Your task to perform on an android device: Add "bose quietcomfort 35" to the cart on bestbuy, then select checkout. Image 0: 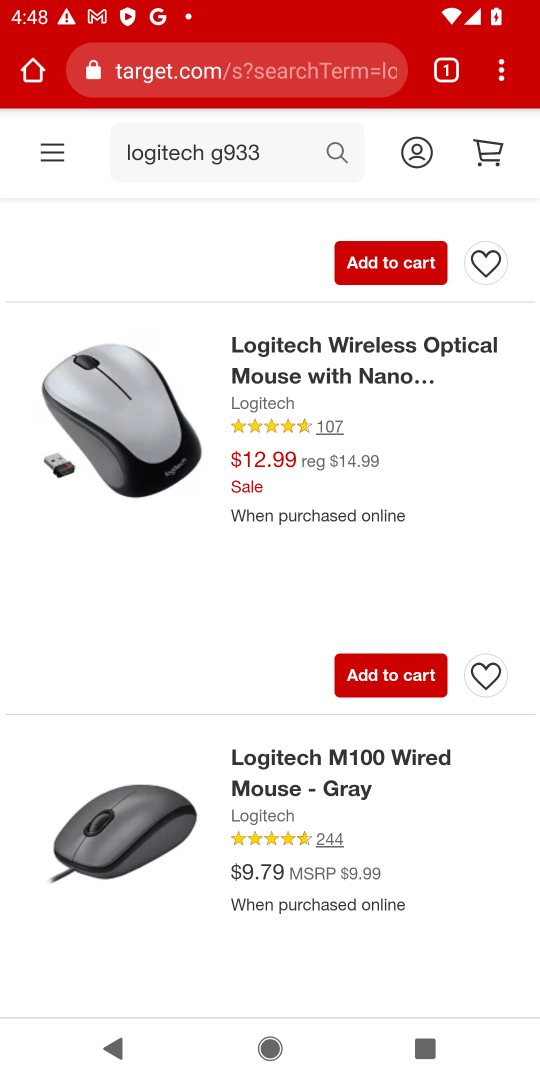
Step 0: press home button
Your task to perform on an android device: Add "bose quietcomfort 35" to the cart on bestbuy, then select checkout. Image 1: 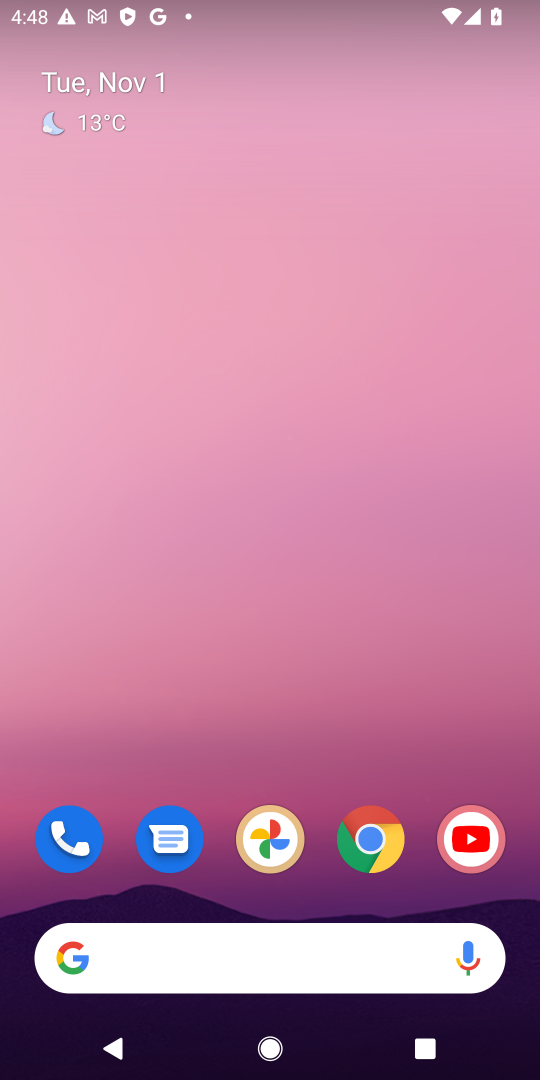
Step 1: drag from (323, 661) to (336, 155)
Your task to perform on an android device: Add "bose quietcomfort 35" to the cart on bestbuy, then select checkout. Image 2: 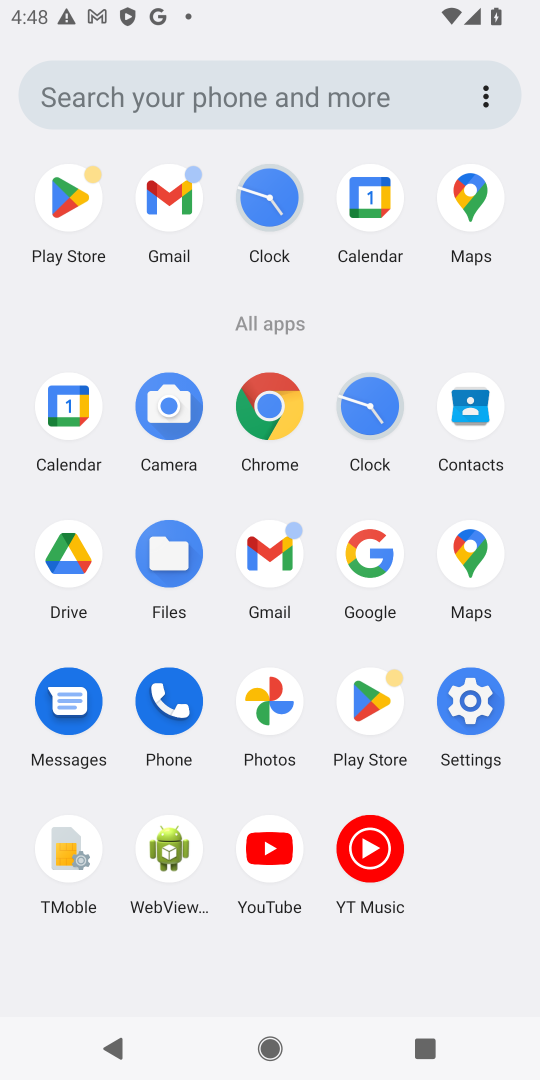
Step 2: click (336, 155)
Your task to perform on an android device: Add "bose quietcomfort 35" to the cart on bestbuy, then select checkout. Image 3: 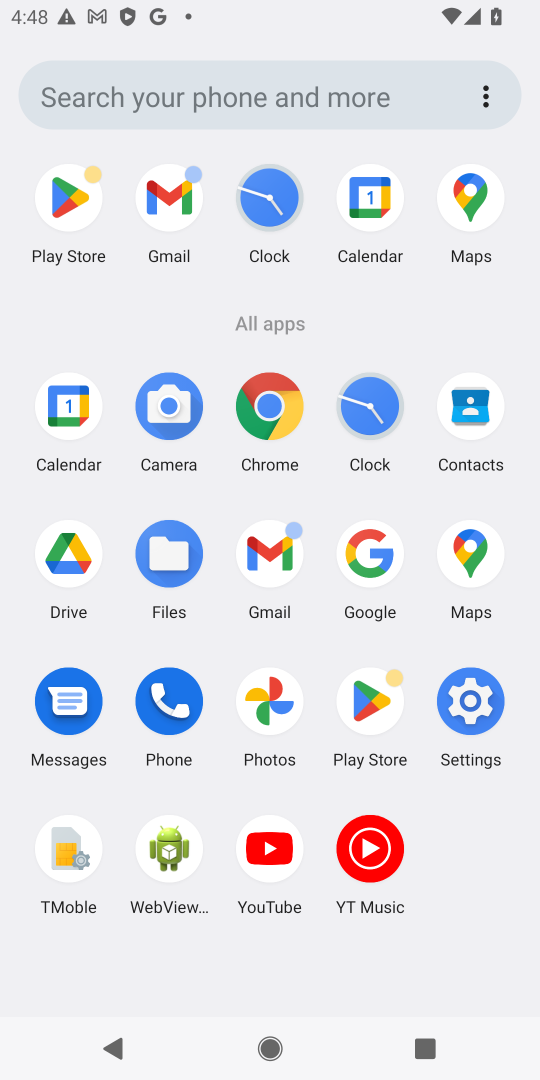
Step 3: click (253, 415)
Your task to perform on an android device: Add "bose quietcomfort 35" to the cart on bestbuy, then select checkout. Image 4: 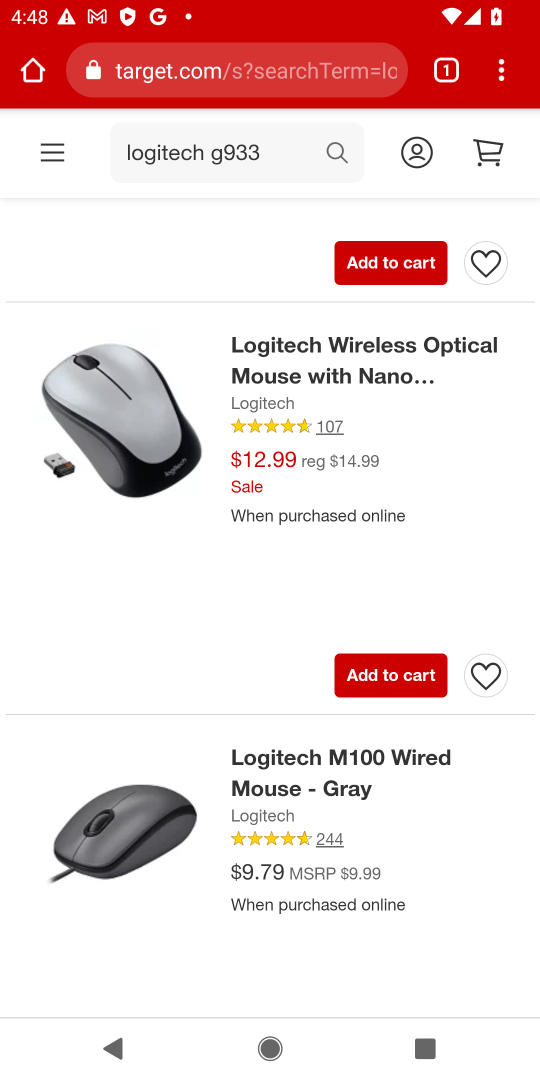
Step 4: click (347, 78)
Your task to perform on an android device: Add "bose quietcomfort 35" to the cart on bestbuy, then select checkout. Image 5: 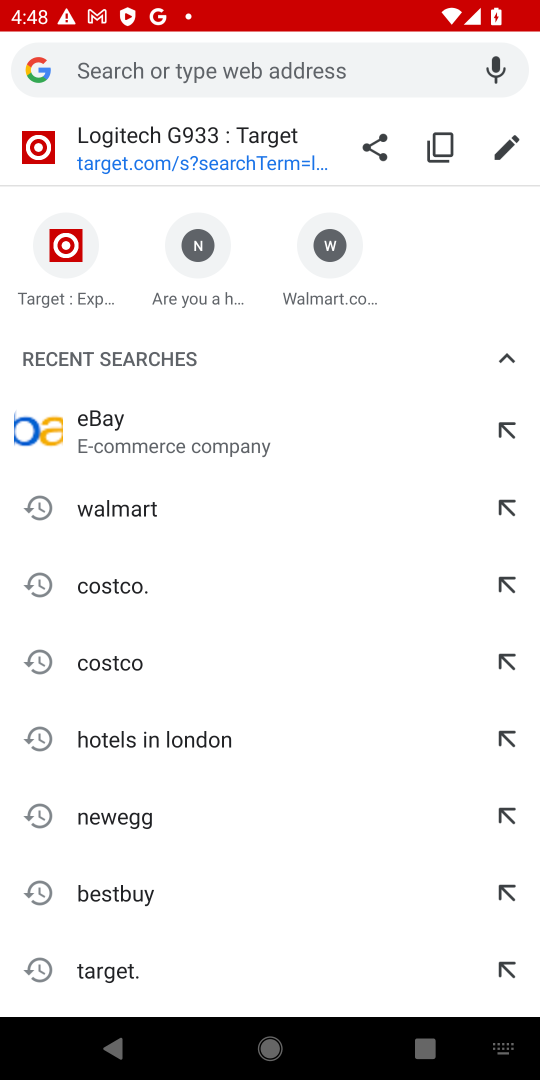
Step 5: type "bestbuy.com"
Your task to perform on an android device: Add "bose quietcomfort 35" to the cart on bestbuy, then select checkout. Image 6: 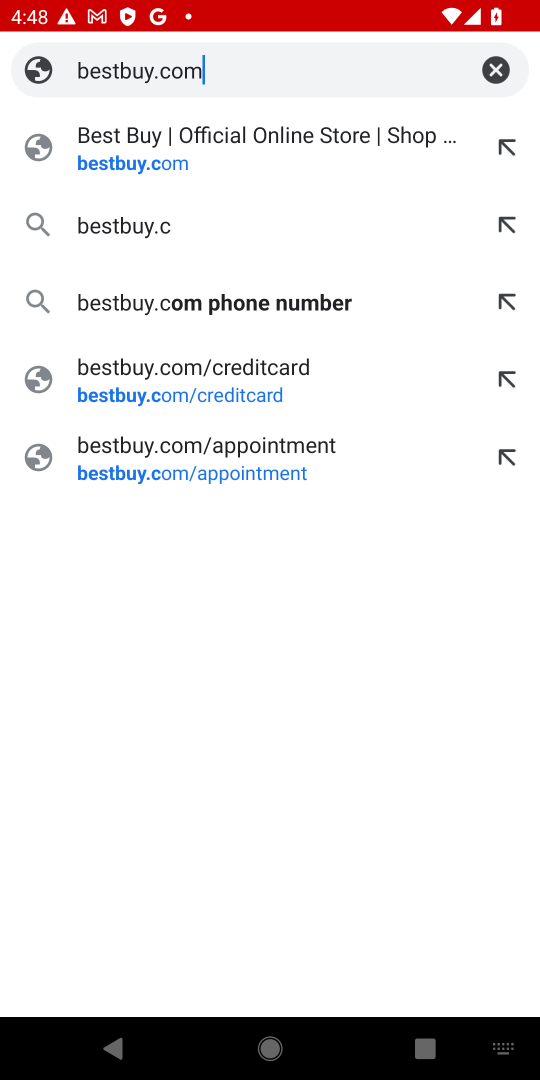
Step 6: press enter
Your task to perform on an android device: Add "bose quietcomfort 35" to the cart on bestbuy, then select checkout. Image 7: 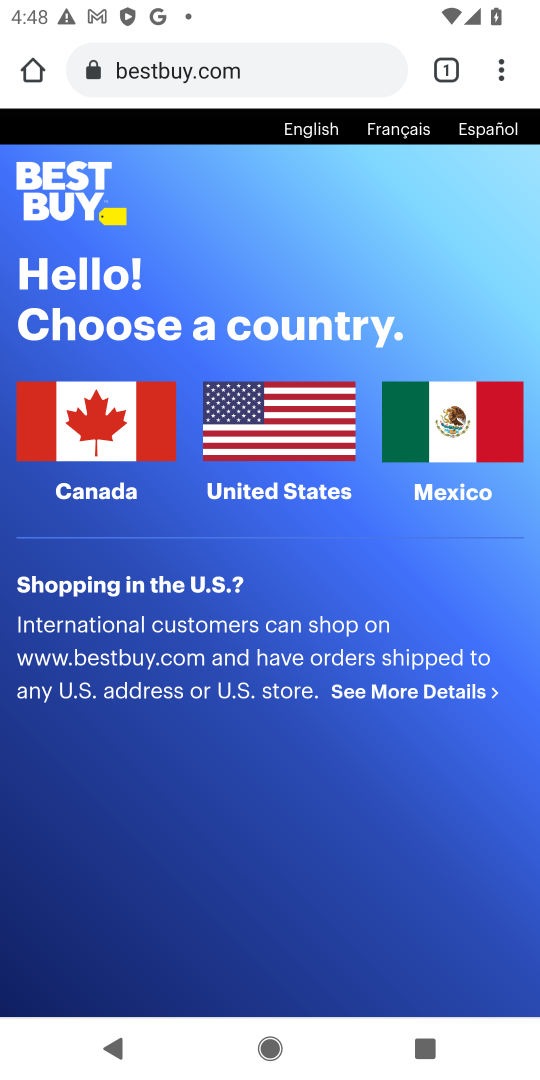
Step 7: click (141, 415)
Your task to perform on an android device: Add "bose quietcomfort 35" to the cart on bestbuy, then select checkout. Image 8: 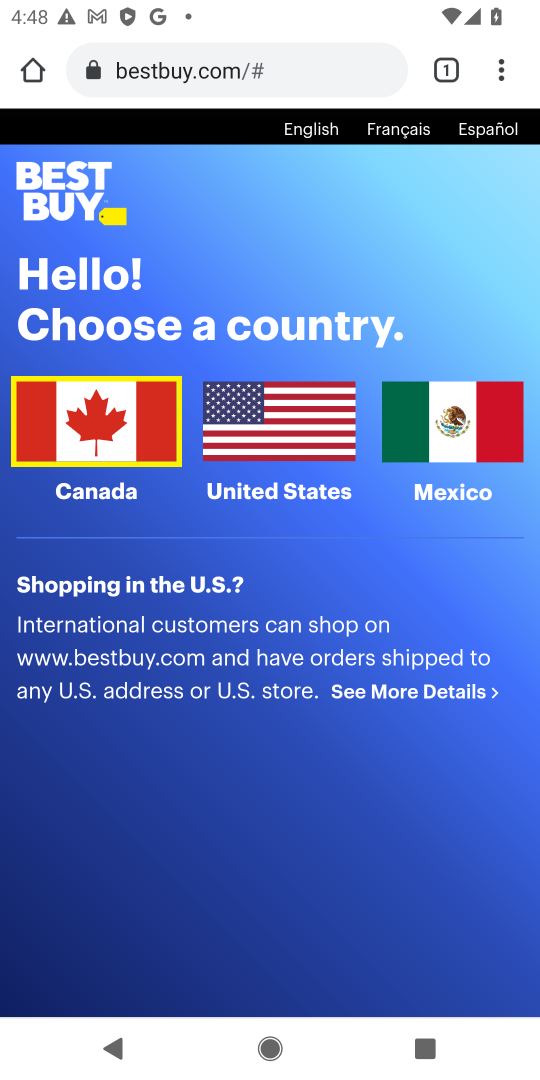
Step 8: click (128, 409)
Your task to perform on an android device: Add "bose quietcomfort 35" to the cart on bestbuy, then select checkout. Image 9: 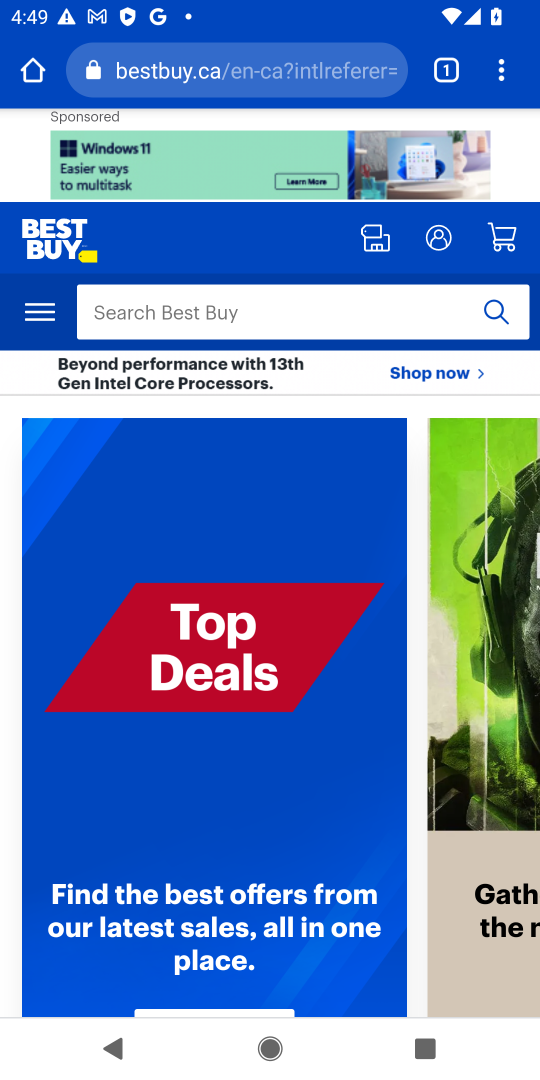
Step 9: click (315, 291)
Your task to perform on an android device: Add "bose quietcomfort 35" to the cart on bestbuy, then select checkout. Image 10: 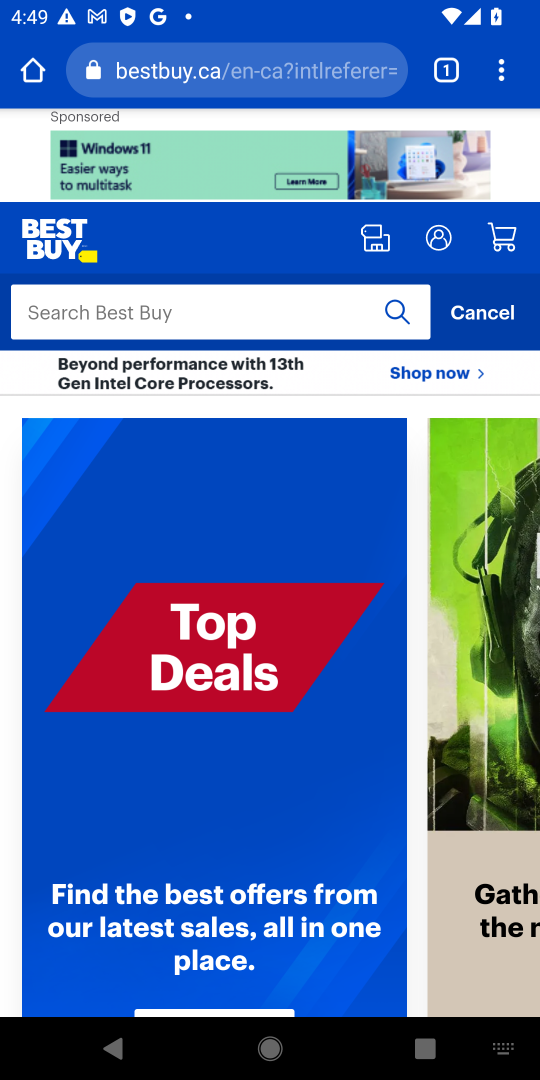
Step 10: type "bose quietcomfort"
Your task to perform on an android device: Add "bose quietcomfort 35" to the cart on bestbuy, then select checkout. Image 11: 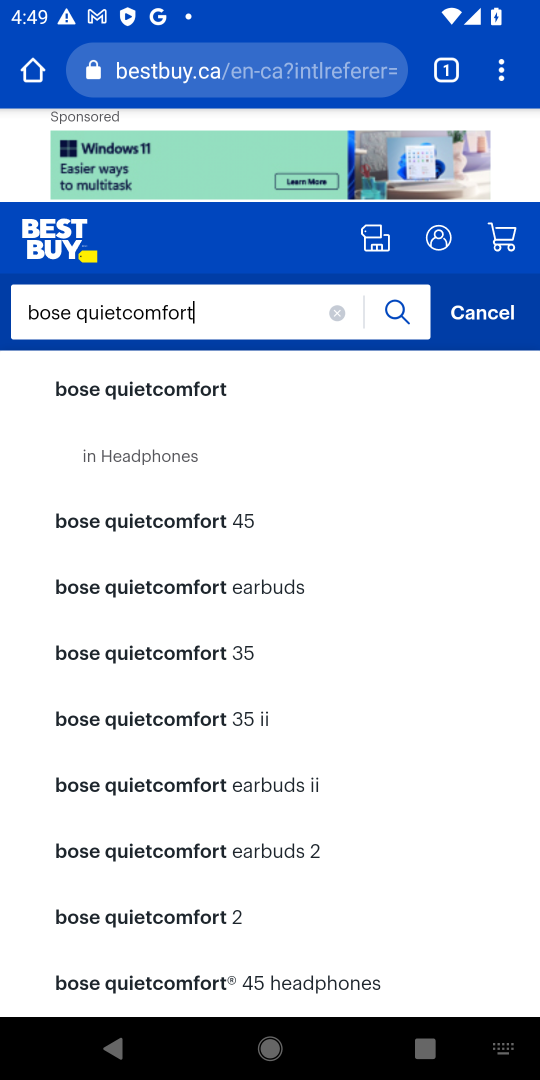
Step 11: press enter
Your task to perform on an android device: Add "bose quietcomfort 35" to the cart on bestbuy, then select checkout. Image 12: 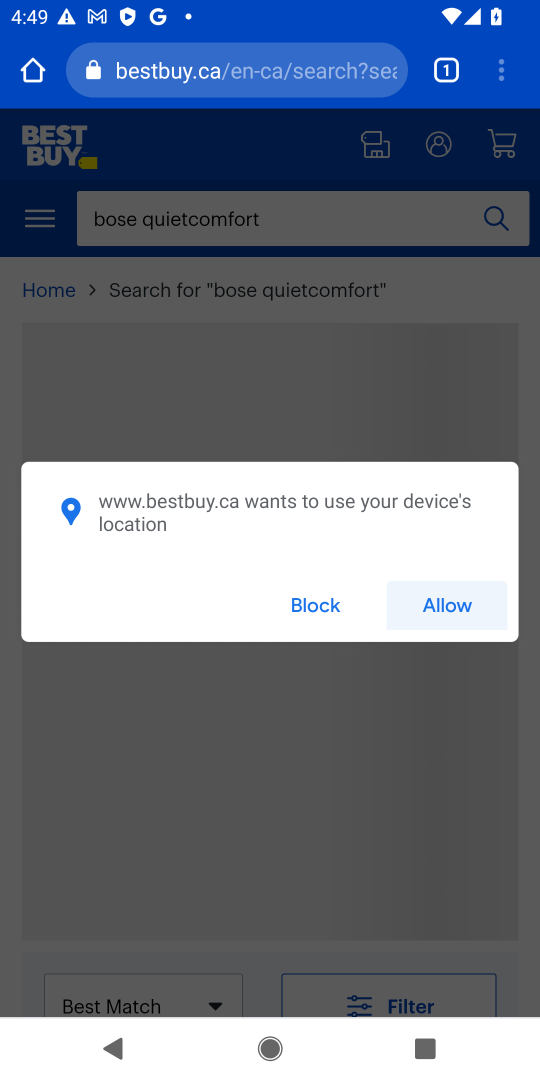
Step 12: click (305, 615)
Your task to perform on an android device: Add "bose quietcomfort 35" to the cart on bestbuy, then select checkout. Image 13: 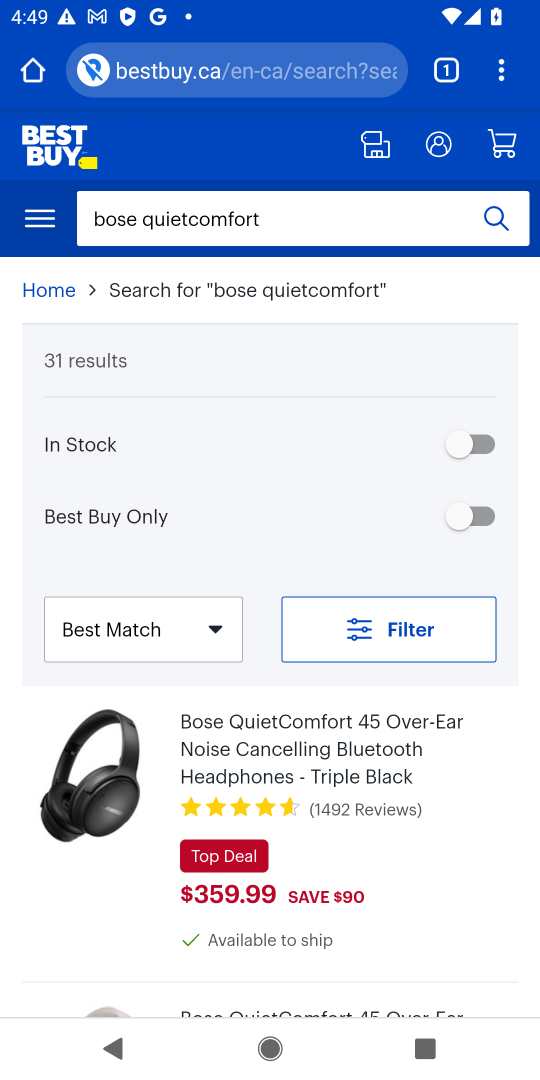
Step 13: drag from (431, 808) to (459, 372)
Your task to perform on an android device: Add "bose quietcomfort 35" to the cart on bestbuy, then select checkout. Image 14: 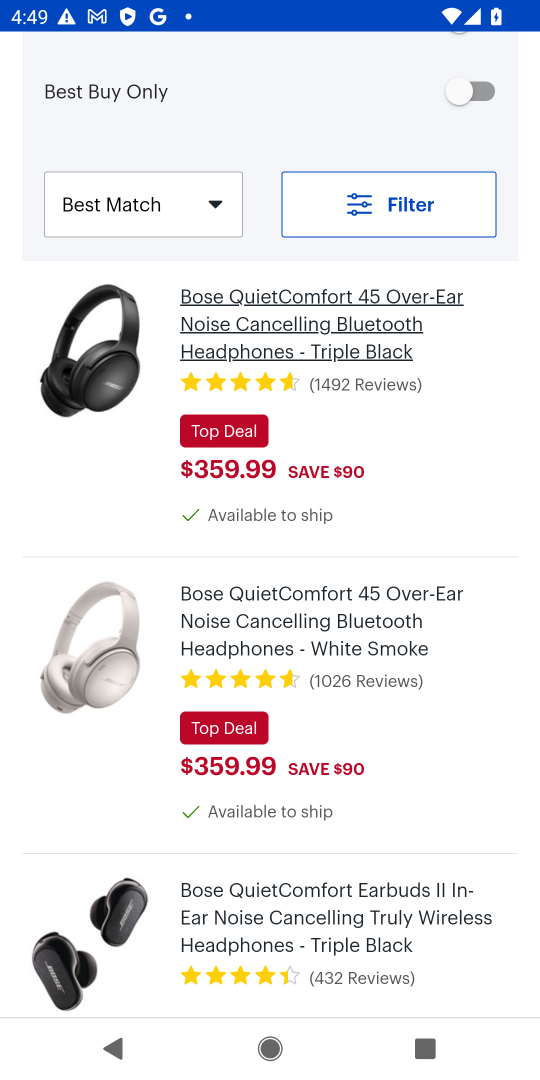
Step 14: drag from (370, 727) to (391, 176)
Your task to perform on an android device: Add "bose quietcomfort 35" to the cart on bestbuy, then select checkout. Image 15: 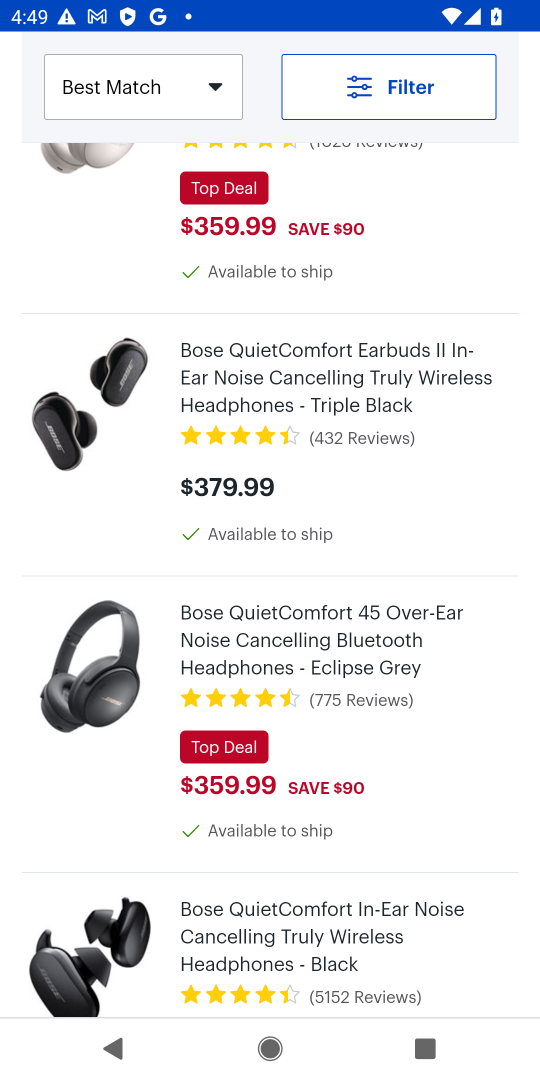
Step 15: drag from (318, 392) to (344, 1028)
Your task to perform on an android device: Add "bose quietcomfort 35" to the cart on bestbuy, then select checkout. Image 16: 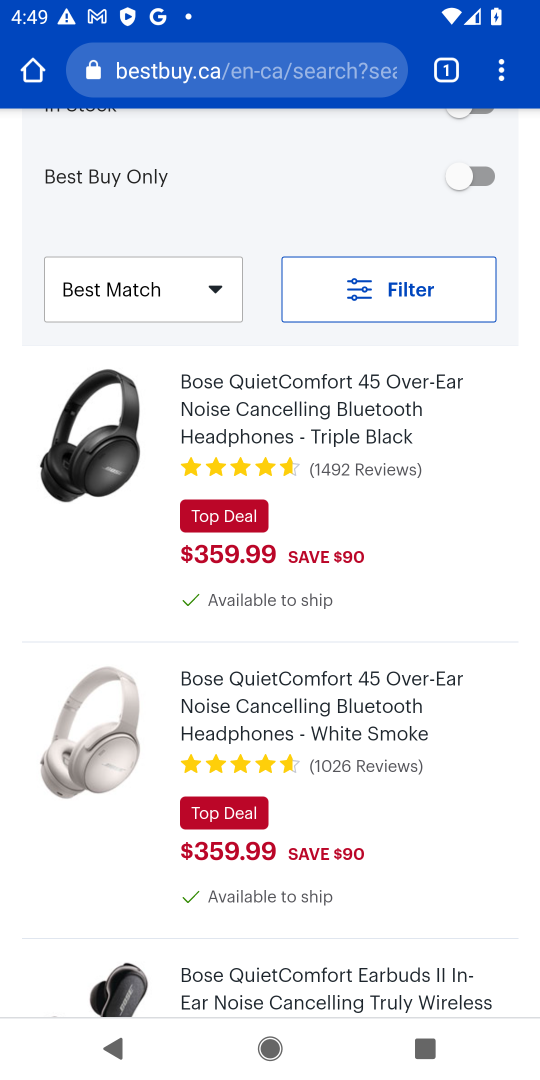
Step 16: drag from (331, 486) to (318, 76)
Your task to perform on an android device: Add "bose quietcomfort 35" to the cart on bestbuy, then select checkout. Image 17: 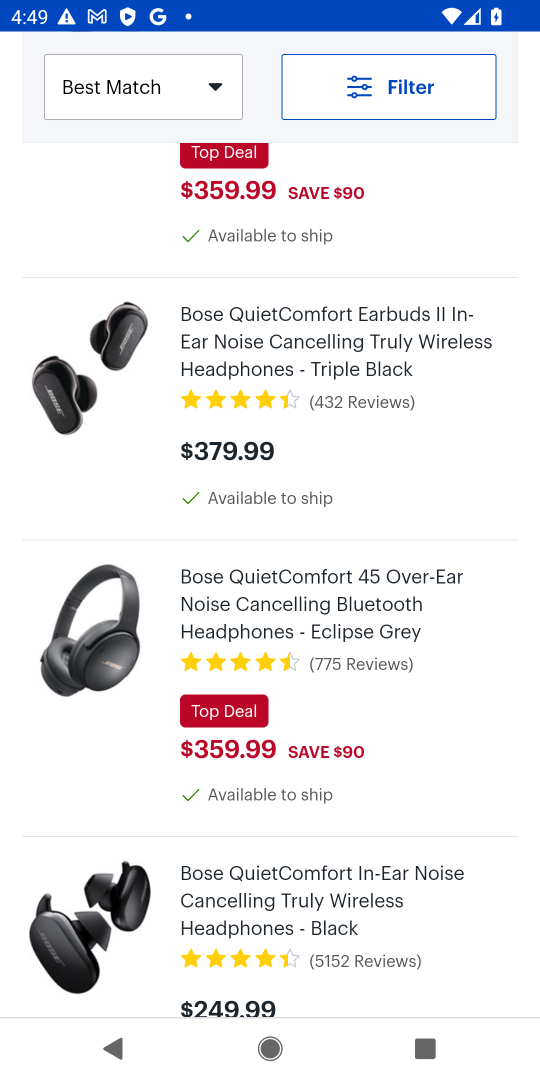
Step 17: drag from (328, 720) to (402, 86)
Your task to perform on an android device: Add "bose quietcomfort 35" to the cart on bestbuy, then select checkout. Image 18: 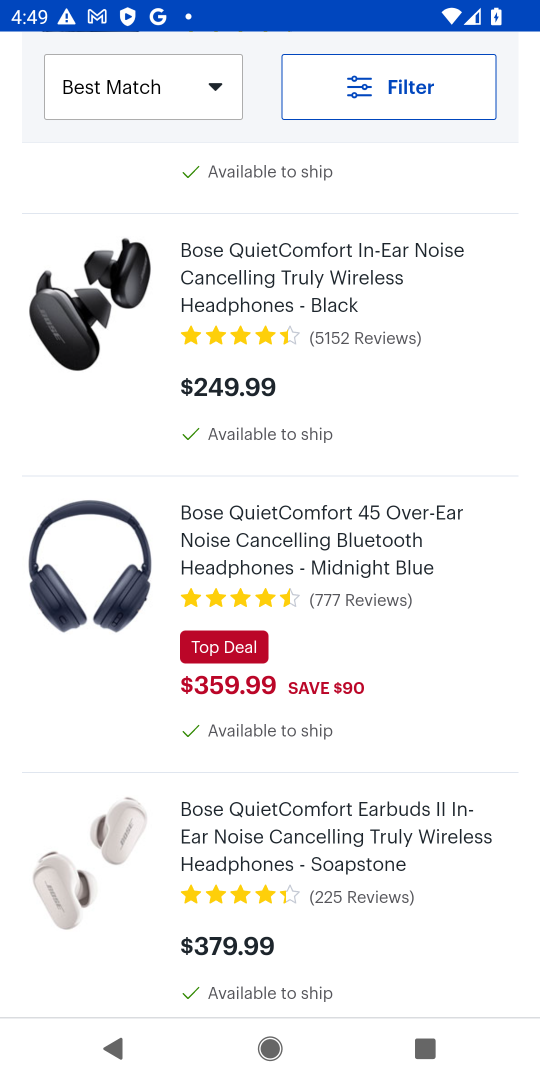
Step 18: drag from (364, 762) to (458, 2)
Your task to perform on an android device: Add "bose quietcomfort 35" to the cart on bestbuy, then select checkout. Image 19: 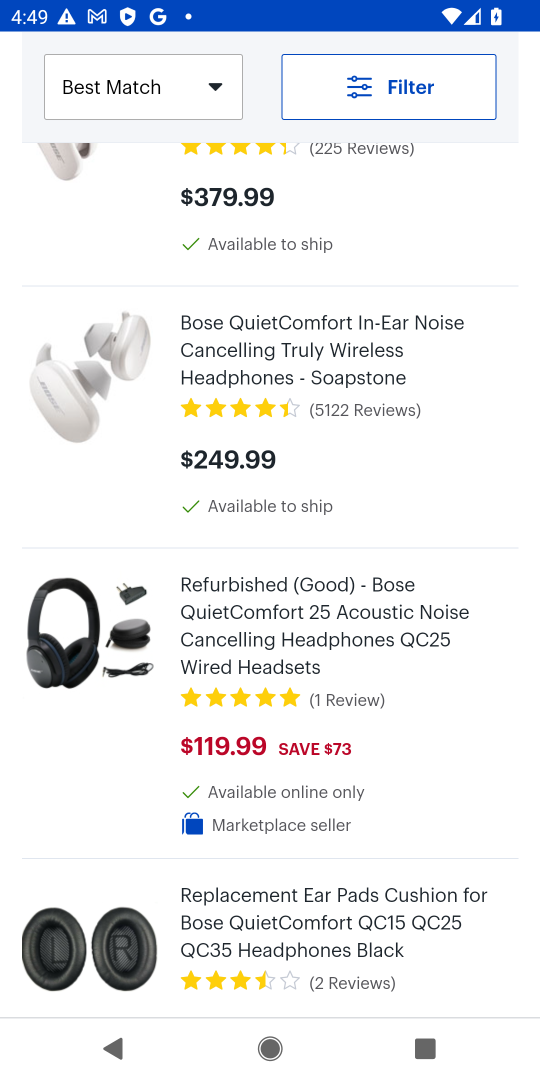
Step 19: drag from (462, 808) to (475, 350)
Your task to perform on an android device: Add "bose quietcomfort 35" to the cart on bestbuy, then select checkout. Image 20: 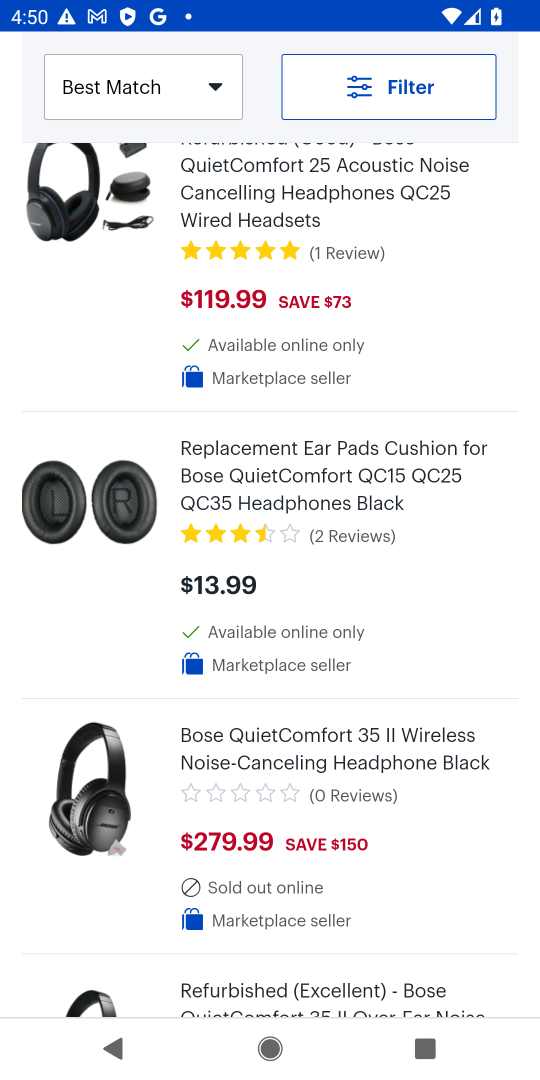
Step 20: click (263, 789)
Your task to perform on an android device: Add "bose quietcomfort 35" to the cart on bestbuy, then select checkout. Image 21: 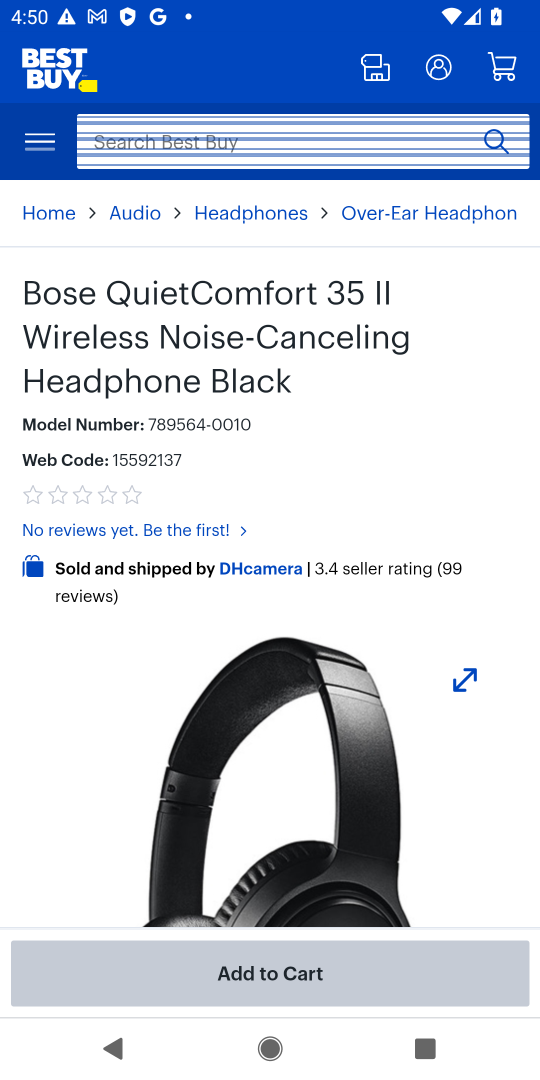
Step 21: drag from (269, 819) to (363, 124)
Your task to perform on an android device: Add "bose quietcomfort 35" to the cart on bestbuy, then select checkout. Image 22: 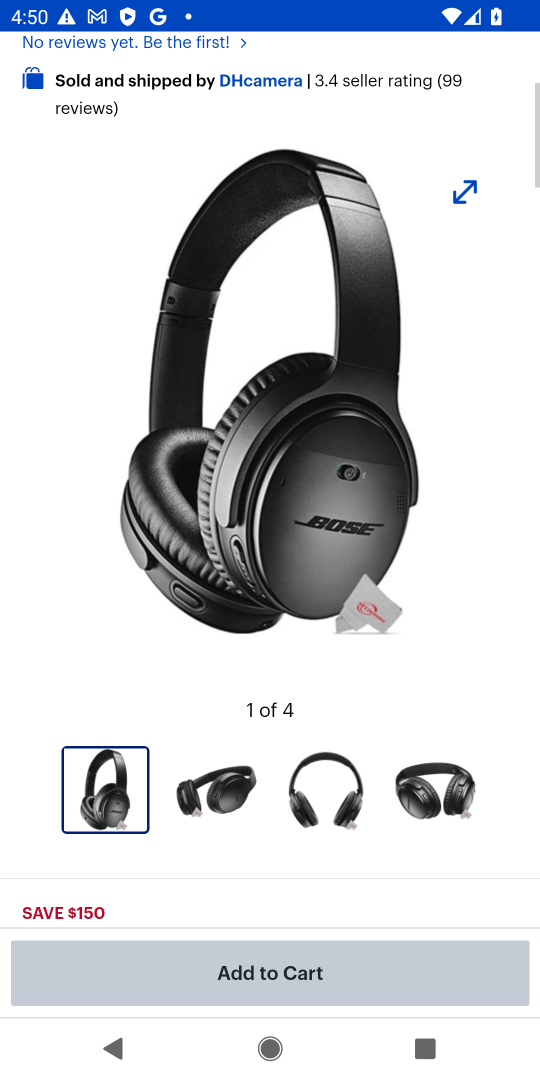
Step 22: drag from (337, 565) to (366, 66)
Your task to perform on an android device: Add "bose quietcomfort 35" to the cart on bestbuy, then select checkout. Image 23: 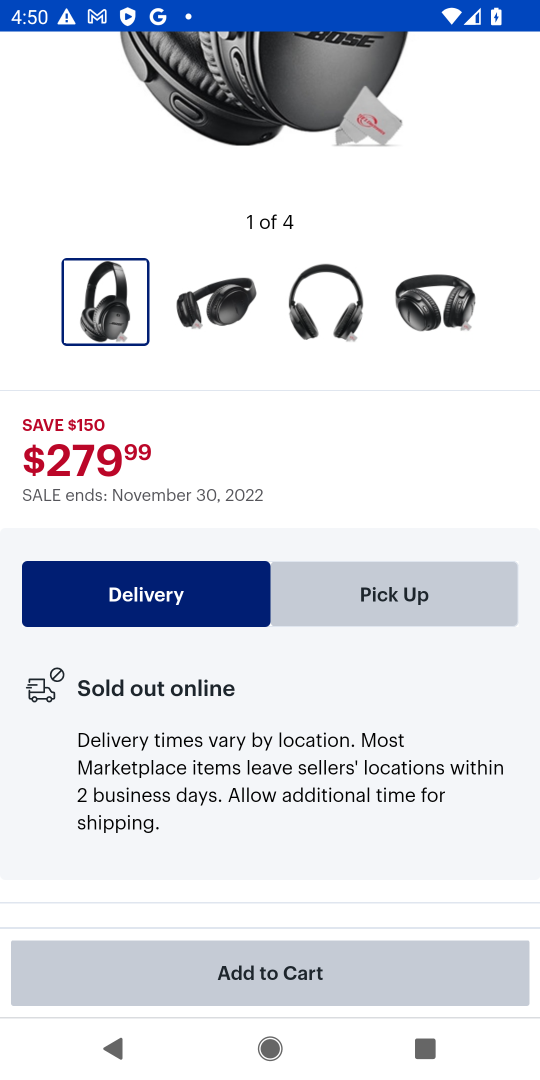
Step 23: drag from (440, 796) to (421, 670)
Your task to perform on an android device: Add "bose quietcomfort 35" to the cart on bestbuy, then select checkout. Image 24: 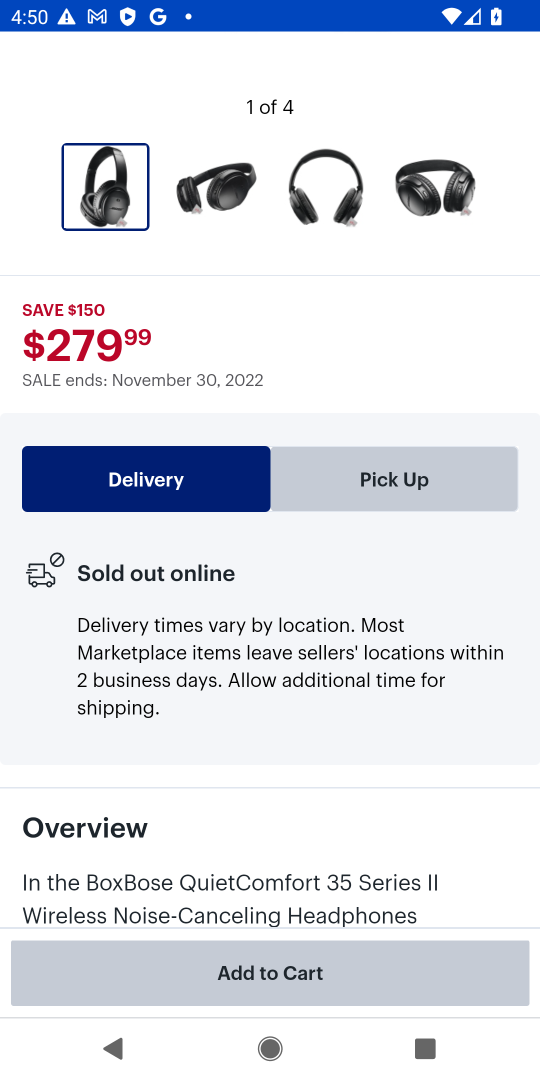
Step 24: click (250, 968)
Your task to perform on an android device: Add "bose quietcomfort 35" to the cart on bestbuy, then select checkout. Image 25: 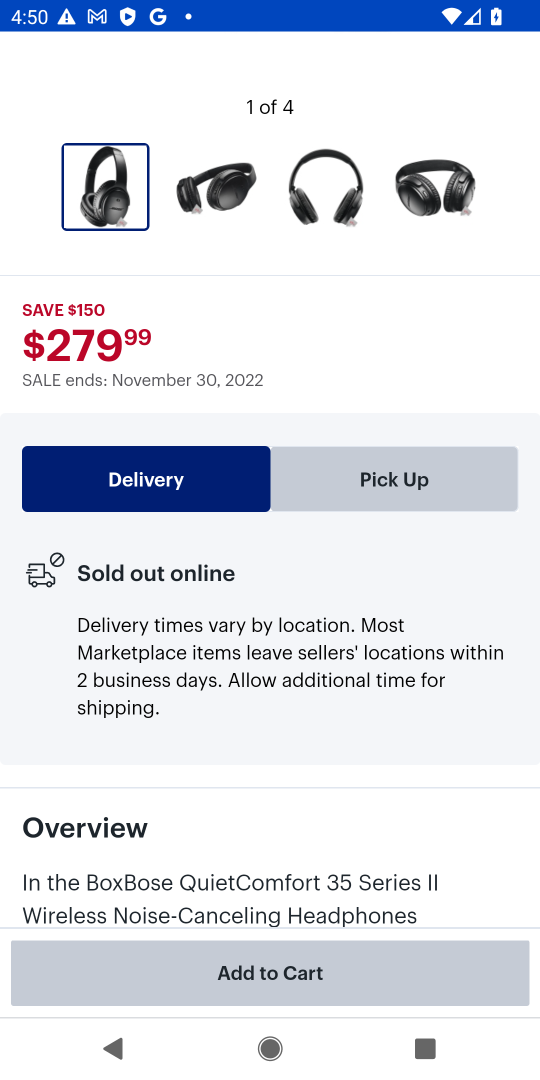
Step 25: click (298, 984)
Your task to perform on an android device: Add "bose quietcomfort 35" to the cart on bestbuy, then select checkout. Image 26: 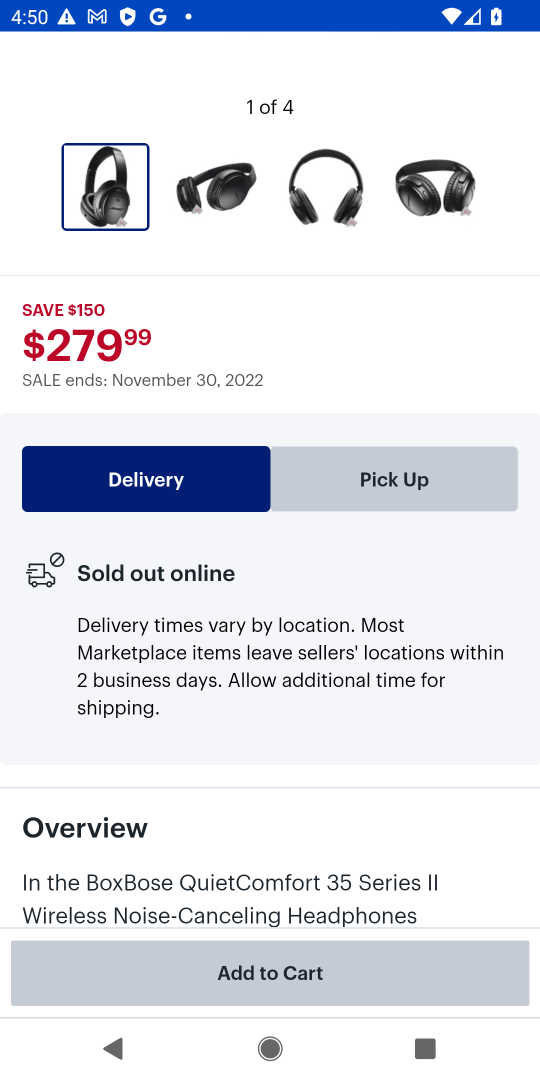
Step 26: click (230, 968)
Your task to perform on an android device: Add "bose quietcomfort 35" to the cart on bestbuy, then select checkout. Image 27: 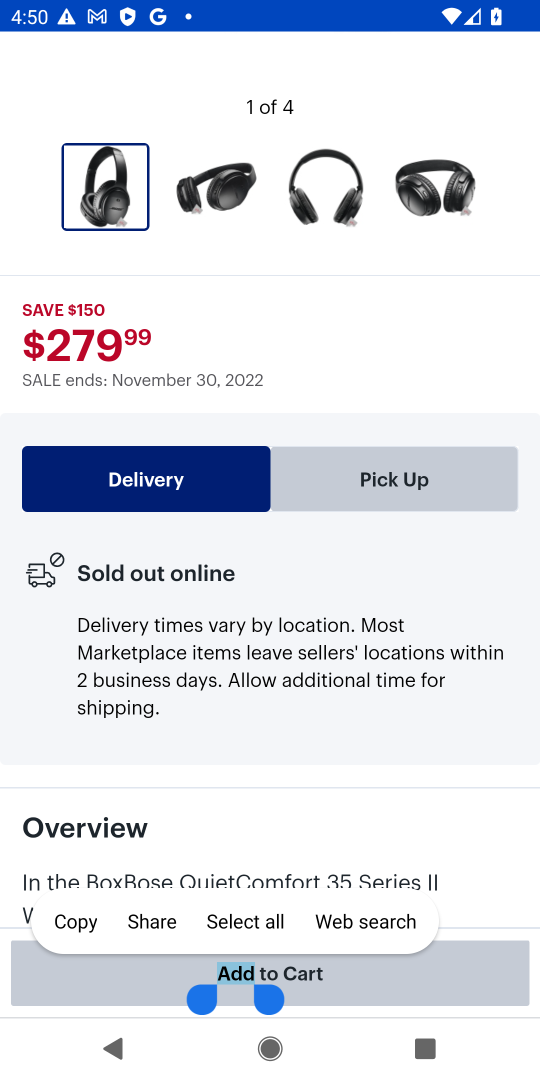
Step 27: drag from (343, 855) to (399, 558)
Your task to perform on an android device: Add "bose quietcomfort 35" to the cart on bestbuy, then select checkout. Image 28: 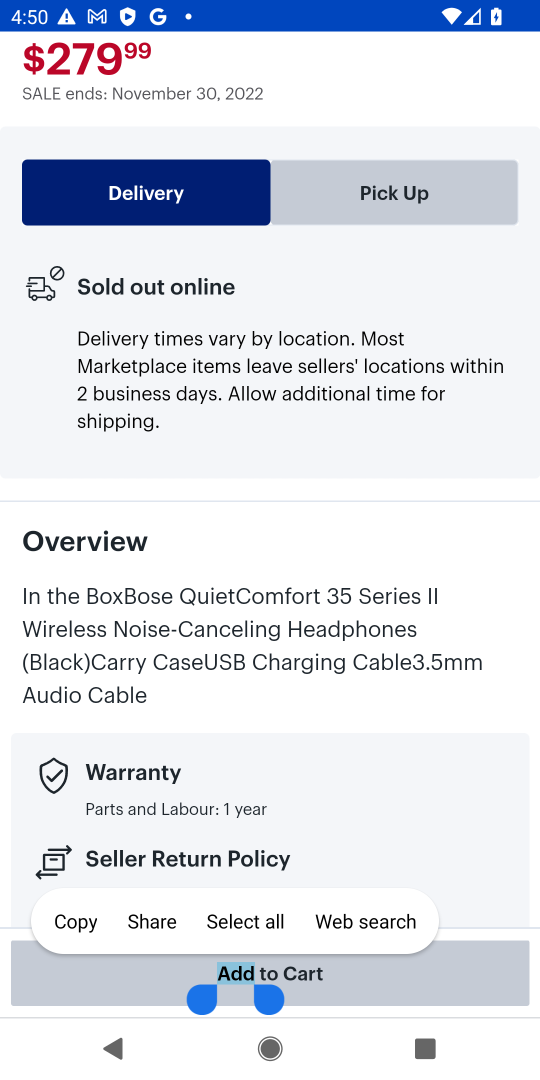
Step 28: click (352, 977)
Your task to perform on an android device: Add "bose quietcomfort 35" to the cart on bestbuy, then select checkout. Image 29: 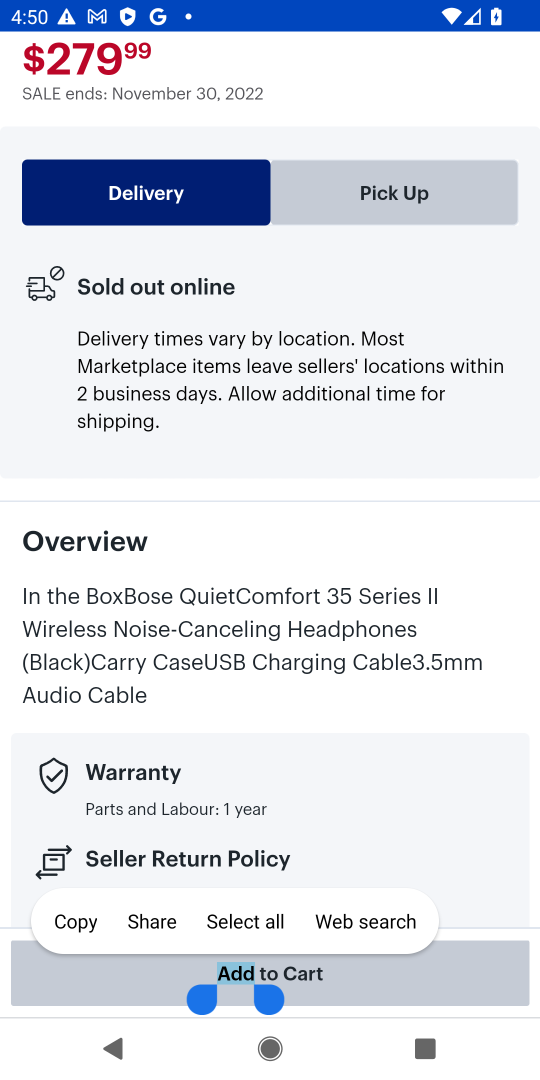
Step 29: click (352, 977)
Your task to perform on an android device: Add "bose quietcomfort 35" to the cart on bestbuy, then select checkout. Image 30: 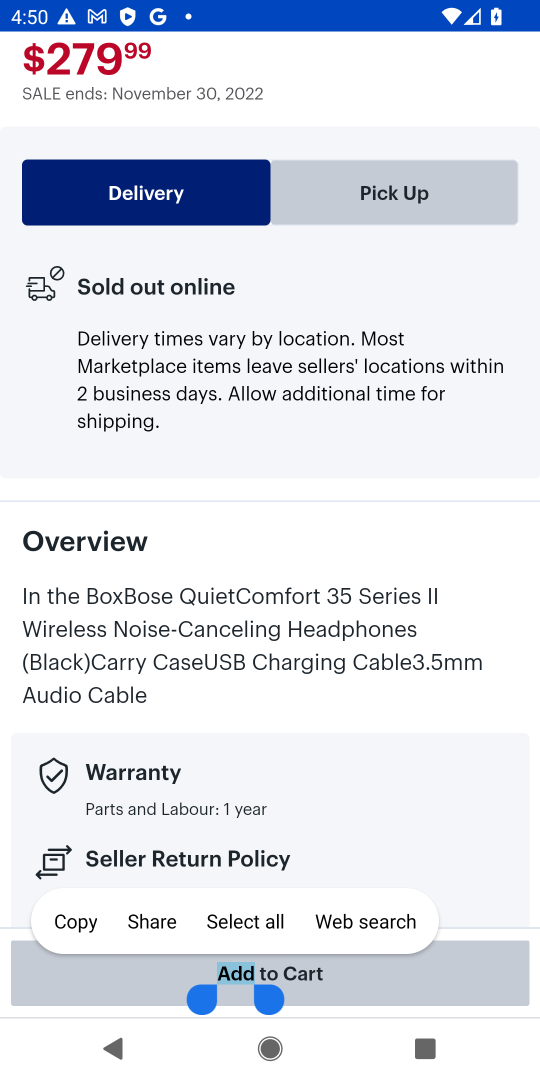
Step 30: task complete